Your task to perform on an android device: Turn off the flashlight Image 0: 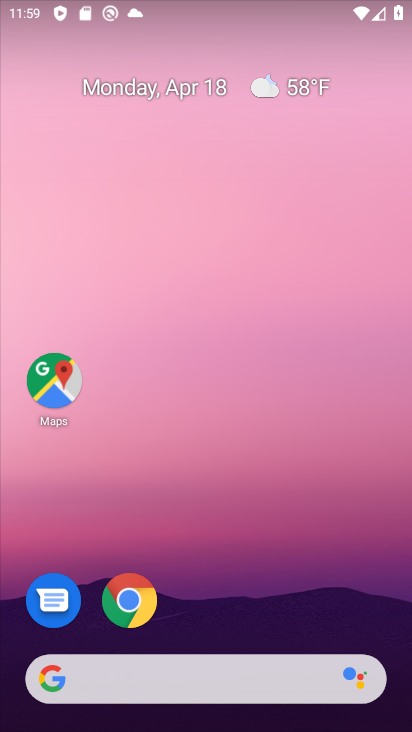
Step 0: drag from (260, 694) to (323, 181)
Your task to perform on an android device: Turn off the flashlight Image 1: 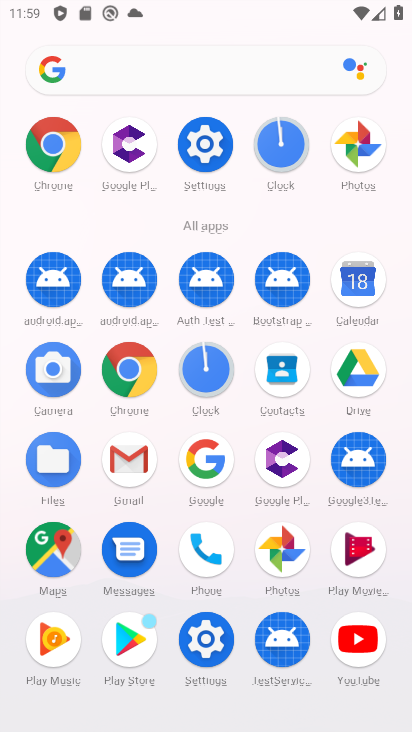
Step 1: click (209, 155)
Your task to perform on an android device: Turn off the flashlight Image 2: 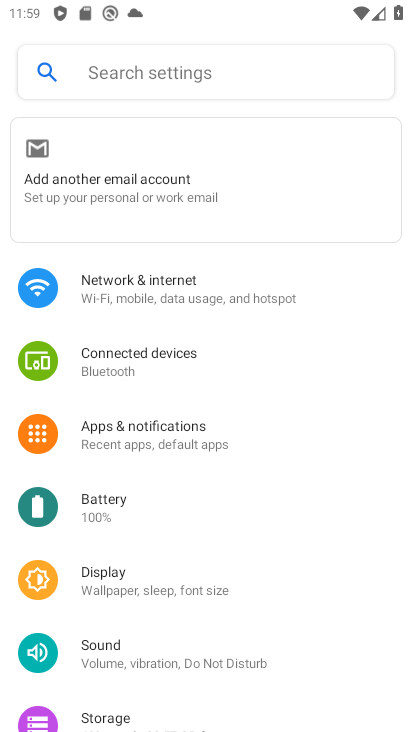
Step 2: click (181, 73)
Your task to perform on an android device: Turn off the flashlight Image 3: 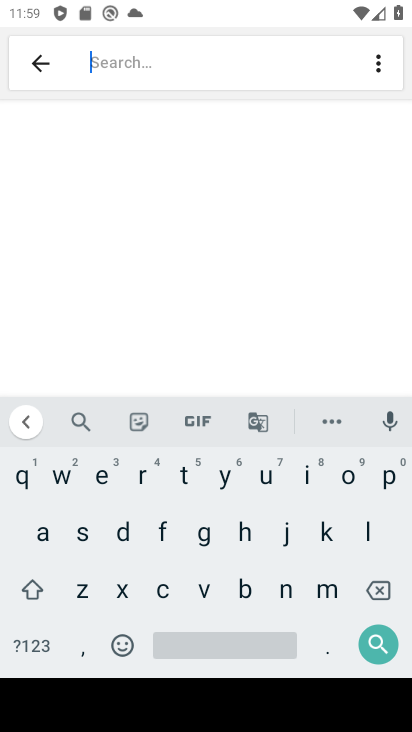
Step 3: click (149, 537)
Your task to perform on an android device: Turn off the flashlight Image 4: 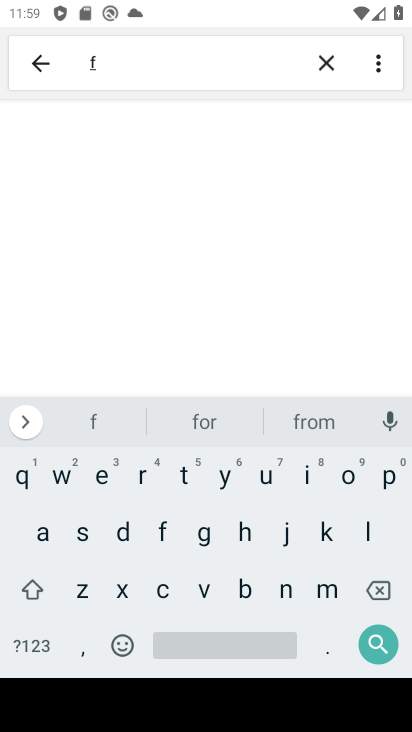
Step 4: click (359, 529)
Your task to perform on an android device: Turn off the flashlight Image 5: 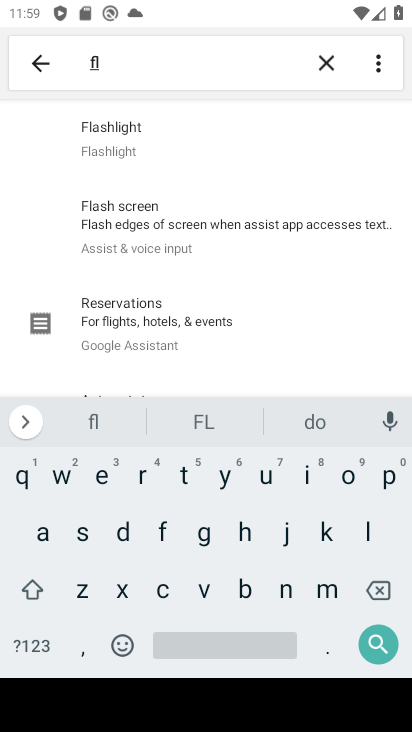
Step 5: click (161, 148)
Your task to perform on an android device: Turn off the flashlight Image 6: 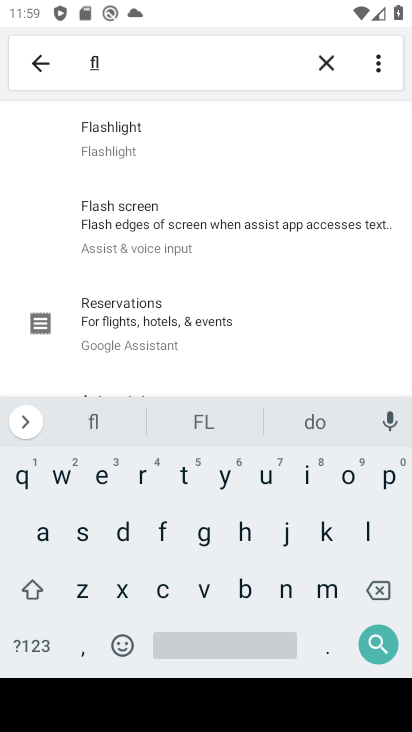
Step 6: click (166, 138)
Your task to perform on an android device: Turn off the flashlight Image 7: 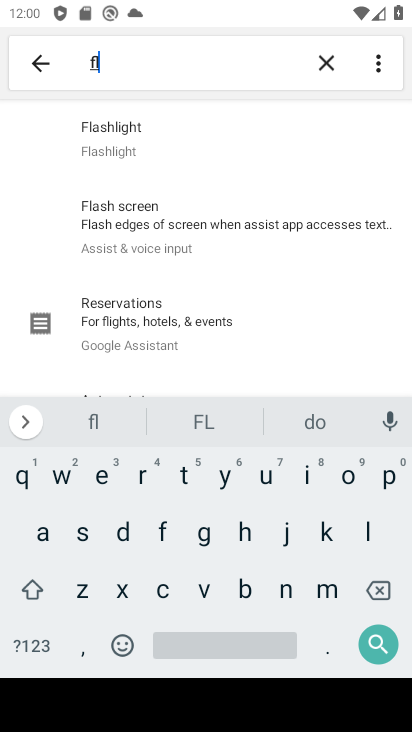
Step 7: task complete